Your task to perform on an android device: Open Youtube and go to the subscriptions tab Image 0: 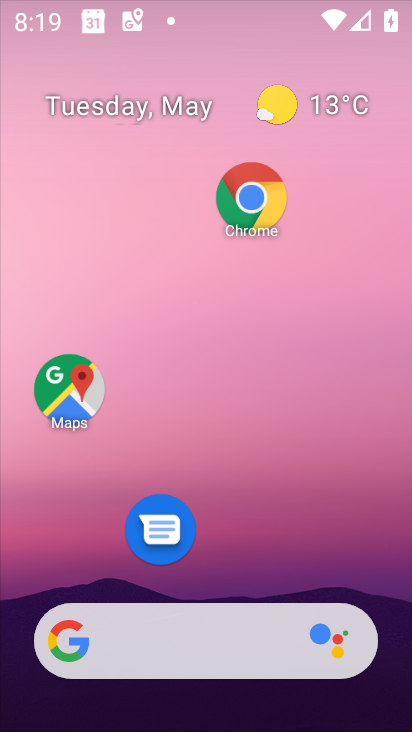
Step 0: drag from (284, 580) to (297, 71)
Your task to perform on an android device: Open Youtube and go to the subscriptions tab Image 1: 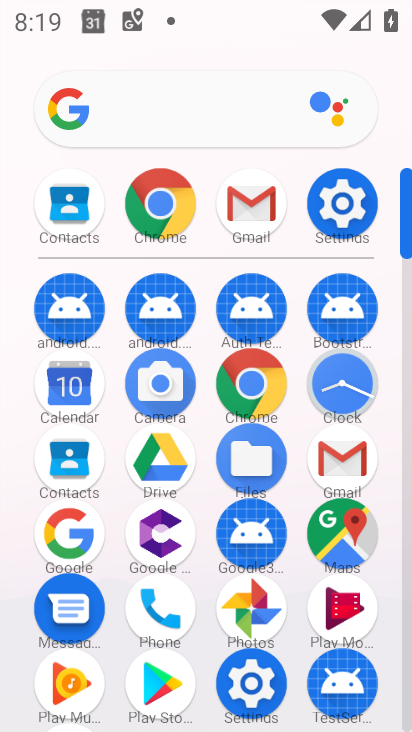
Step 1: click (253, 198)
Your task to perform on an android device: Open Youtube and go to the subscriptions tab Image 2: 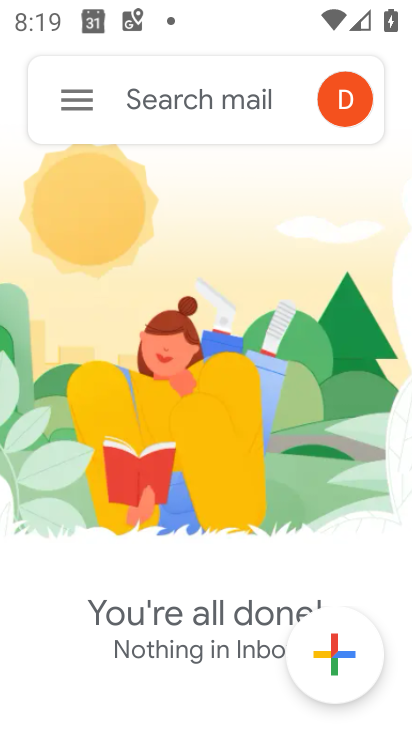
Step 2: press home button
Your task to perform on an android device: Open Youtube and go to the subscriptions tab Image 3: 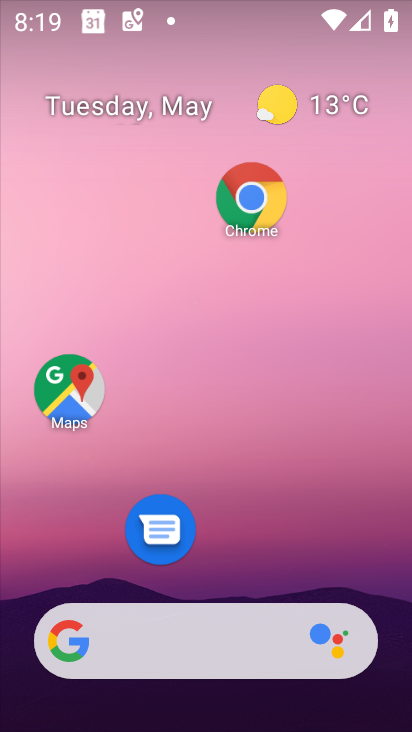
Step 3: drag from (275, 508) to (334, 121)
Your task to perform on an android device: Open Youtube and go to the subscriptions tab Image 4: 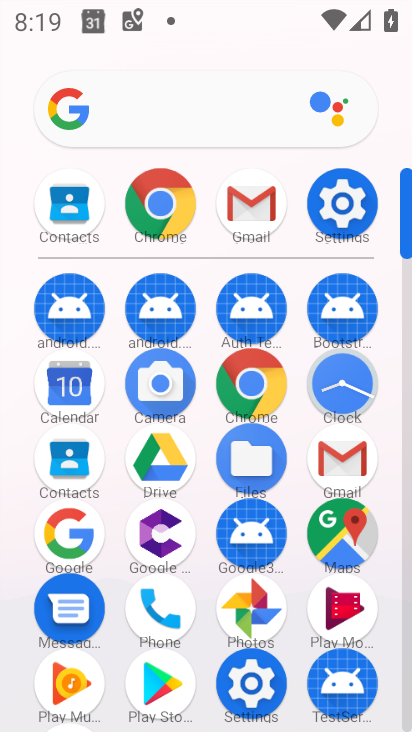
Step 4: click (407, 730)
Your task to perform on an android device: Open Youtube and go to the subscriptions tab Image 5: 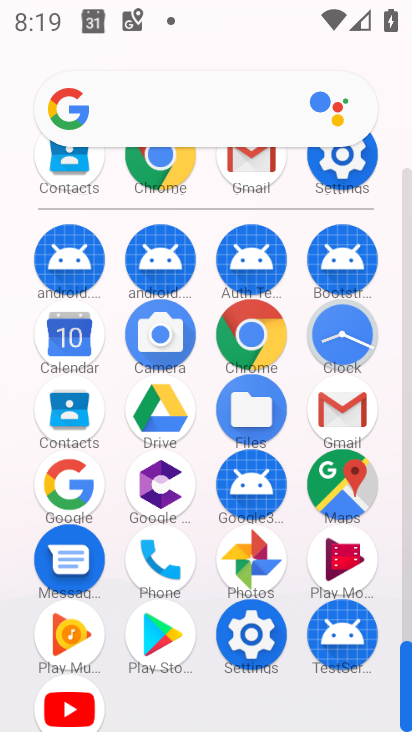
Step 5: click (60, 714)
Your task to perform on an android device: Open Youtube and go to the subscriptions tab Image 6: 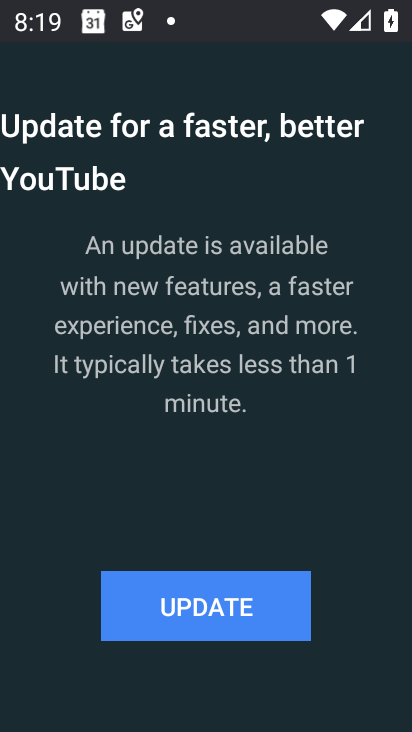
Step 6: click (153, 613)
Your task to perform on an android device: Open Youtube and go to the subscriptions tab Image 7: 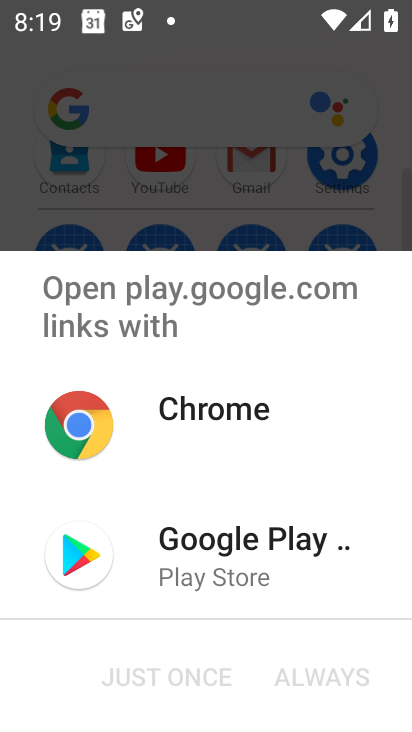
Step 7: click (377, 419)
Your task to perform on an android device: Open Youtube and go to the subscriptions tab Image 8: 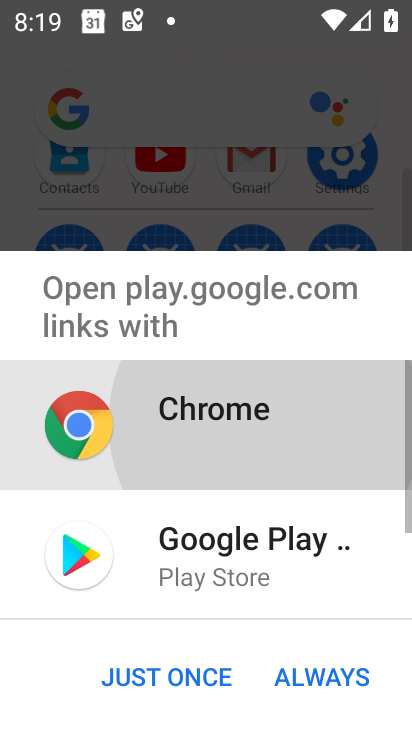
Step 8: click (377, 419)
Your task to perform on an android device: Open Youtube and go to the subscriptions tab Image 9: 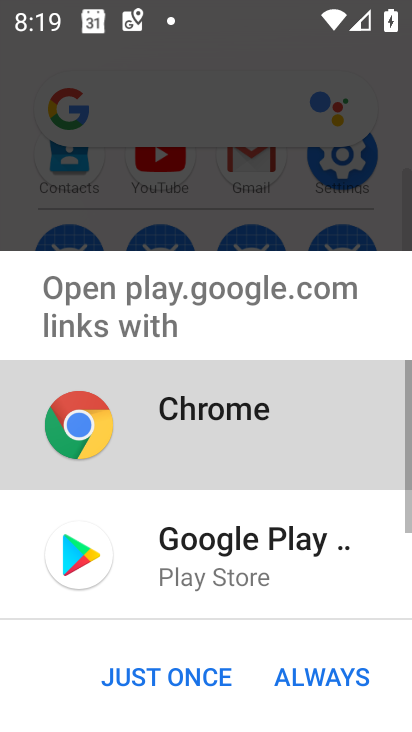
Step 9: click (377, 419)
Your task to perform on an android device: Open Youtube and go to the subscriptions tab Image 10: 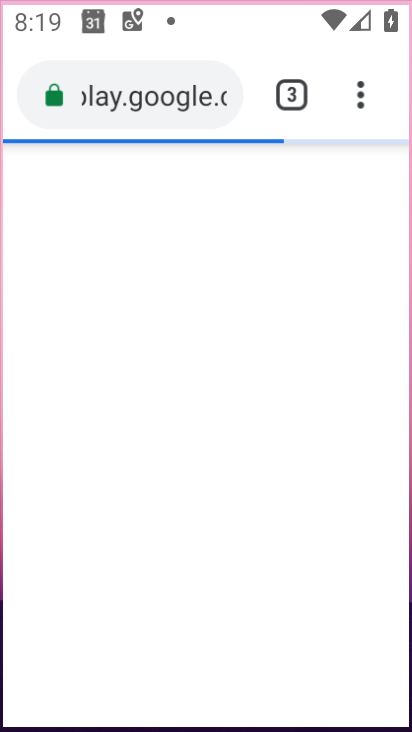
Step 10: click (284, 555)
Your task to perform on an android device: Open Youtube and go to the subscriptions tab Image 11: 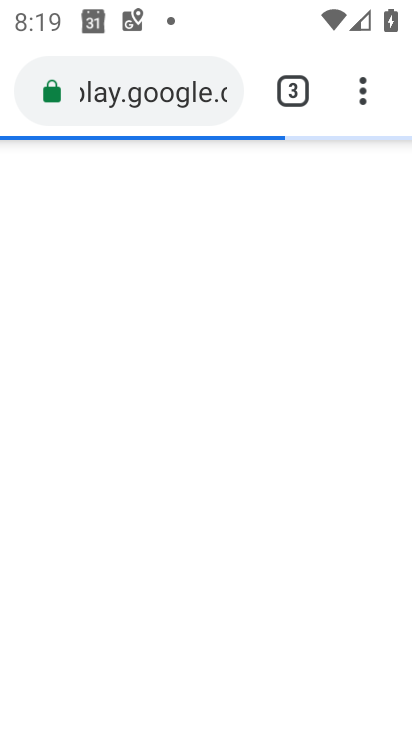
Step 11: click (284, 555)
Your task to perform on an android device: Open Youtube and go to the subscriptions tab Image 12: 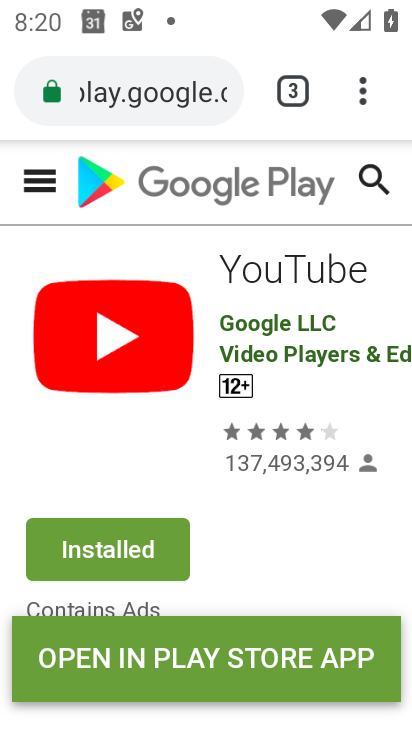
Step 12: press home button
Your task to perform on an android device: Open Youtube and go to the subscriptions tab Image 13: 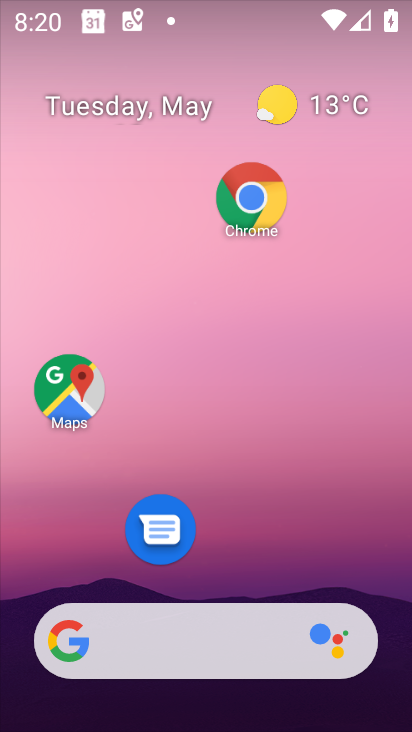
Step 13: drag from (286, 584) to (321, 259)
Your task to perform on an android device: Open Youtube and go to the subscriptions tab Image 14: 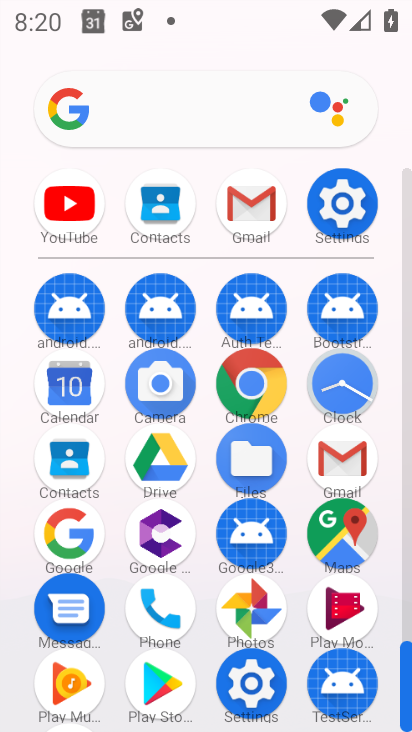
Step 14: click (69, 224)
Your task to perform on an android device: Open Youtube and go to the subscriptions tab Image 15: 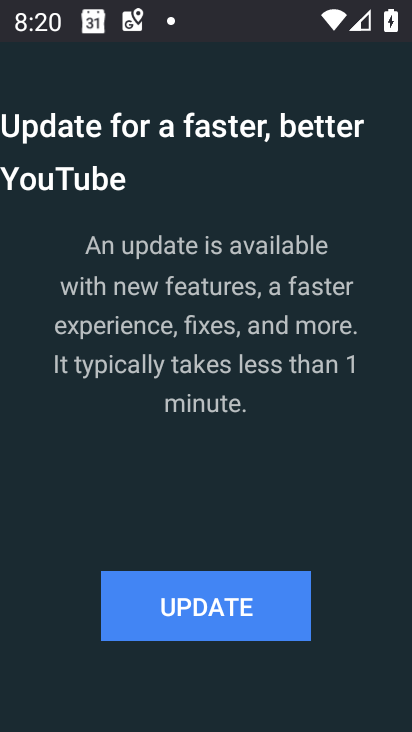
Step 15: click (205, 597)
Your task to perform on an android device: Open Youtube and go to the subscriptions tab Image 16: 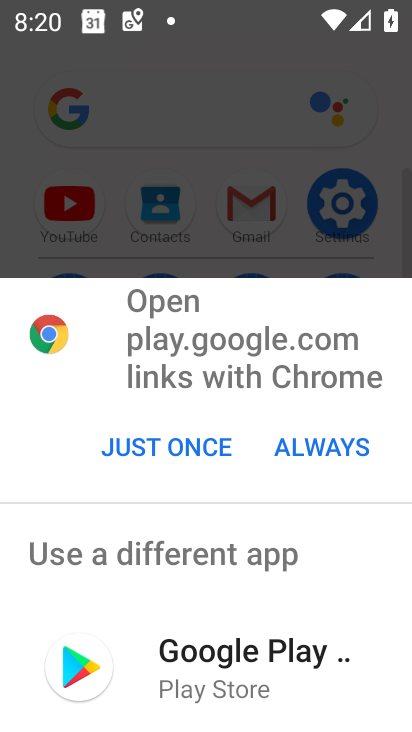
Step 16: click (202, 709)
Your task to perform on an android device: Open Youtube and go to the subscriptions tab Image 17: 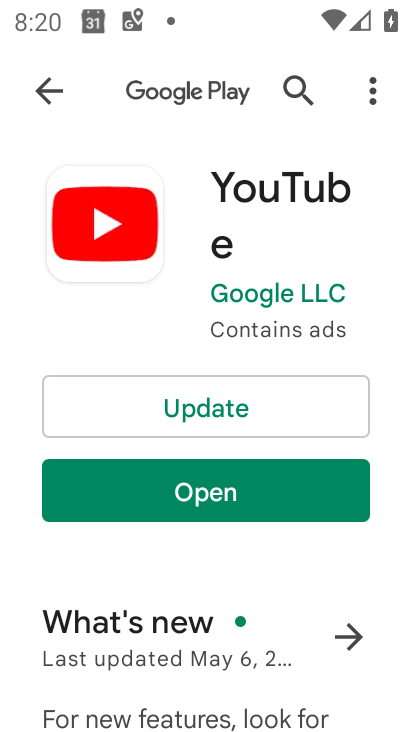
Step 17: click (227, 390)
Your task to perform on an android device: Open Youtube and go to the subscriptions tab Image 18: 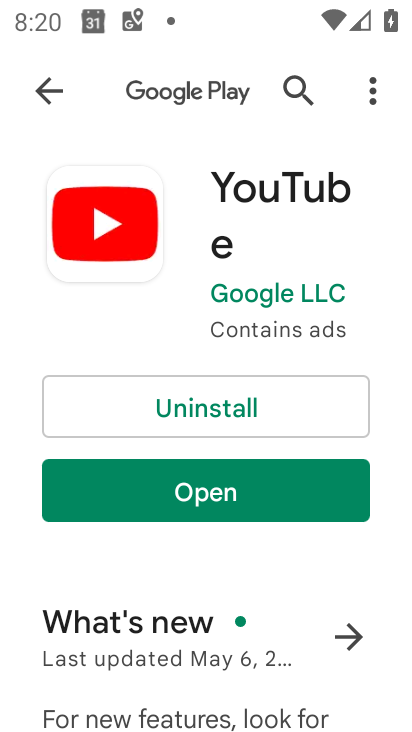
Step 18: click (296, 513)
Your task to perform on an android device: Open Youtube and go to the subscriptions tab Image 19: 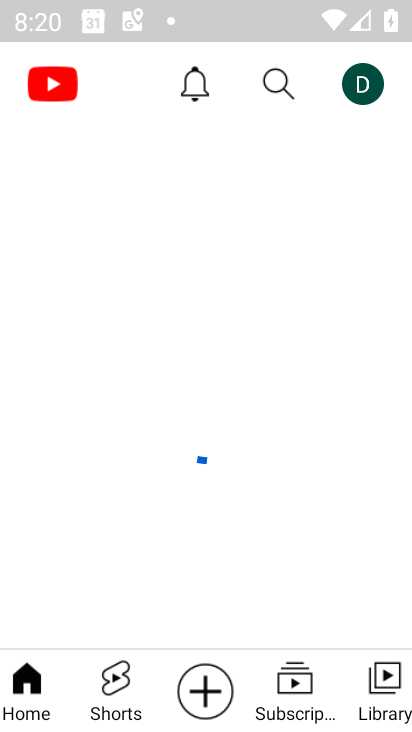
Step 19: click (257, 697)
Your task to perform on an android device: Open Youtube and go to the subscriptions tab Image 20: 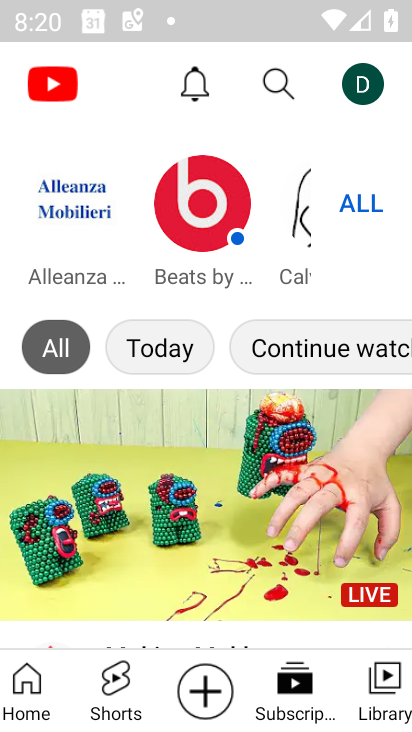
Step 20: task complete